Your task to perform on an android device: What's the weather going to be this weekend? Image 0: 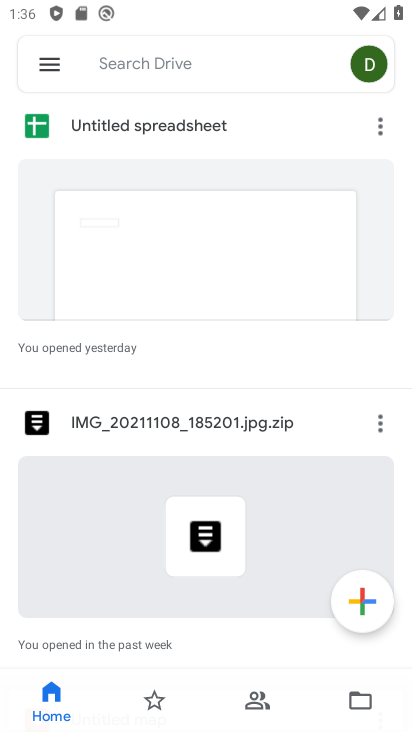
Step 0: press home button
Your task to perform on an android device: What's the weather going to be this weekend? Image 1: 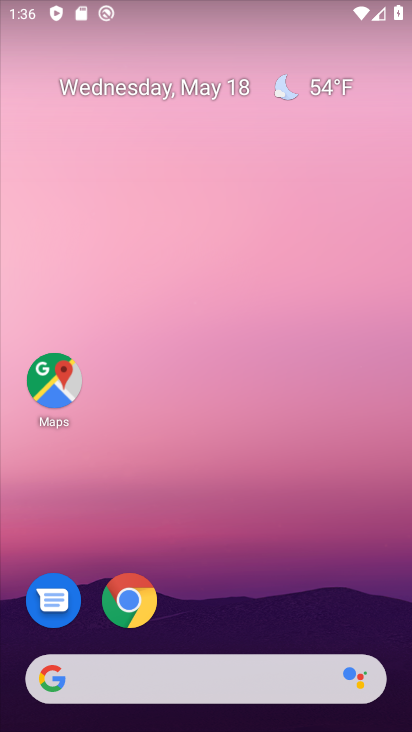
Step 1: click (151, 92)
Your task to perform on an android device: What's the weather going to be this weekend? Image 2: 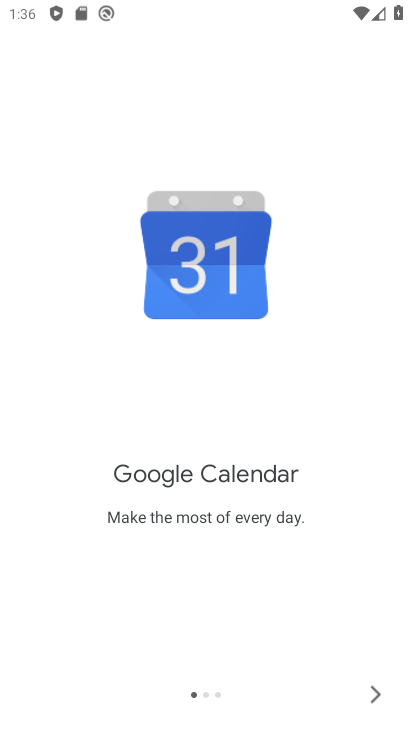
Step 2: click (385, 709)
Your task to perform on an android device: What's the weather going to be this weekend? Image 3: 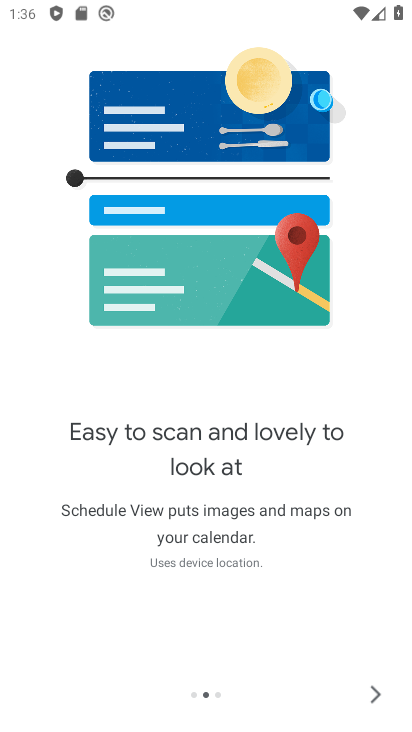
Step 3: click (385, 709)
Your task to perform on an android device: What's the weather going to be this weekend? Image 4: 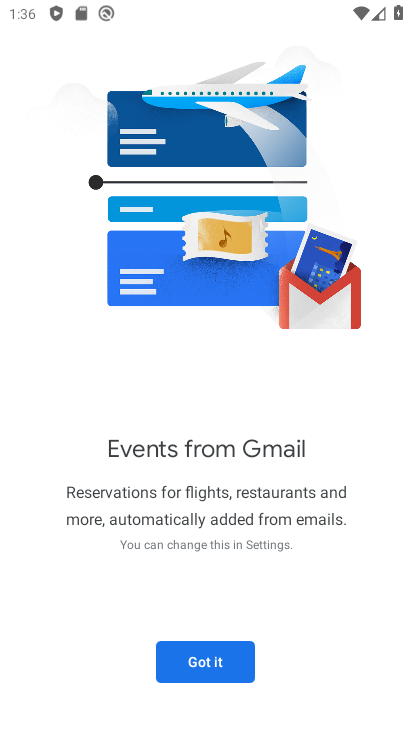
Step 4: click (204, 660)
Your task to perform on an android device: What's the weather going to be this weekend? Image 5: 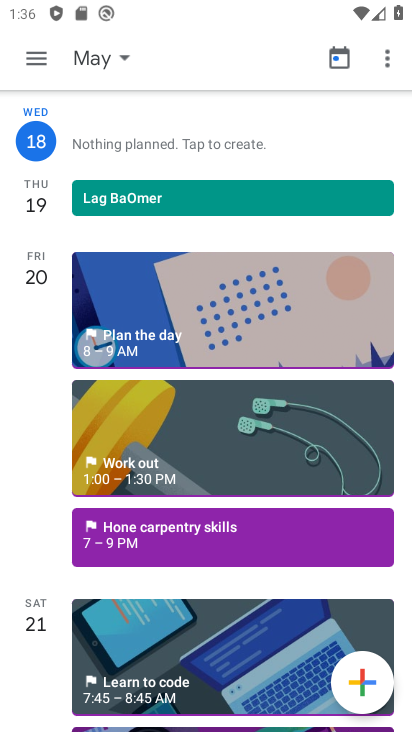
Step 5: press home button
Your task to perform on an android device: What's the weather going to be this weekend? Image 6: 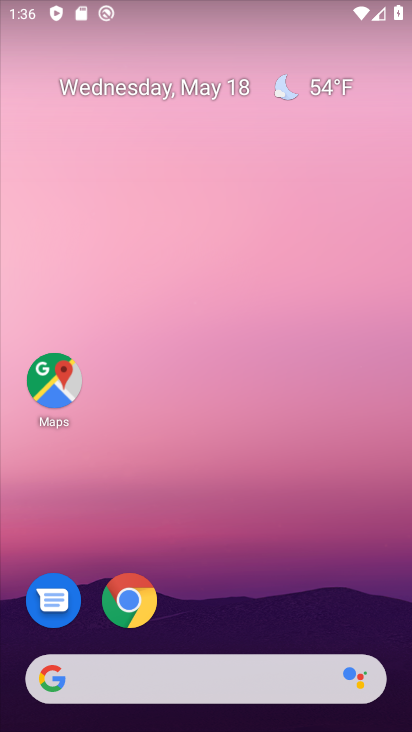
Step 6: click (329, 86)
Your task to perform on an android device: What's the weather going to be this weekend? Image 7: 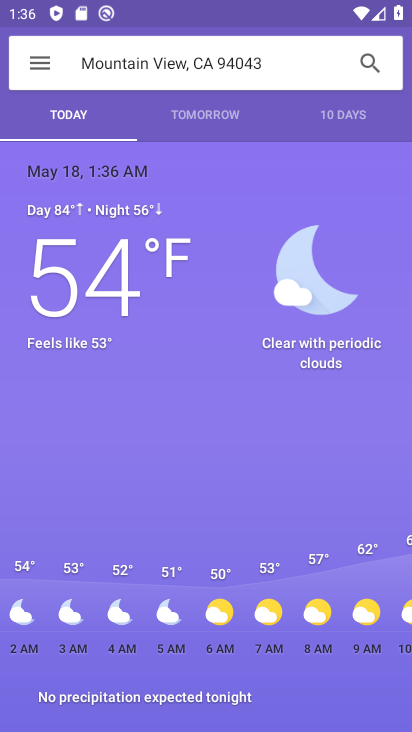
Step 7: click (336, 123)
Your task to perform on an android device: What's the weather going to be this weekend? Image 8: 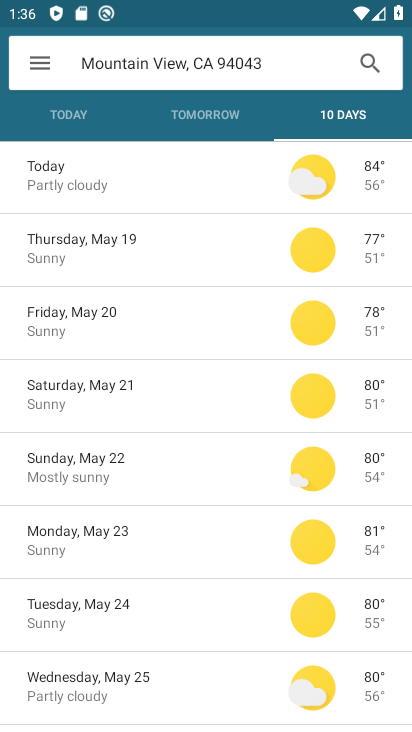
Step 8: task complete